Your task to perform on an android device: toggle javascript in the chrome app Image 0: 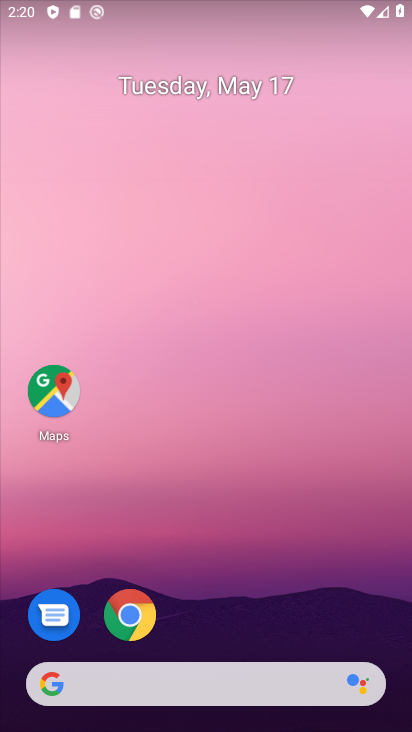
Step 0: click (132, 614)
Your task to perform on an android device: toggle javascript in the chrome app Image 1: 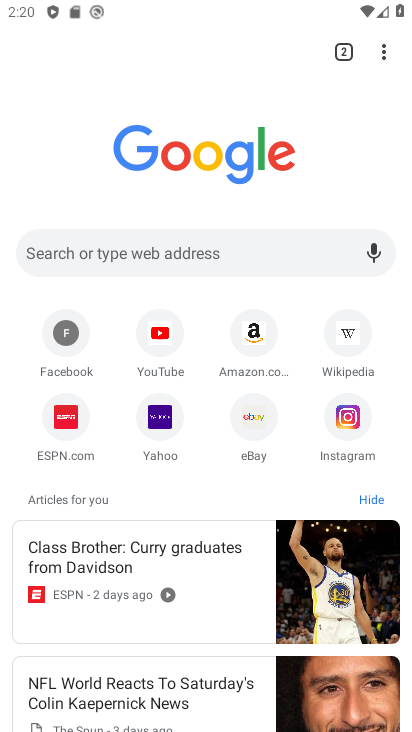
Step 1: click (385, 56)
Your task to perform on an android device: toggle javascript in the chrome app Image 2: 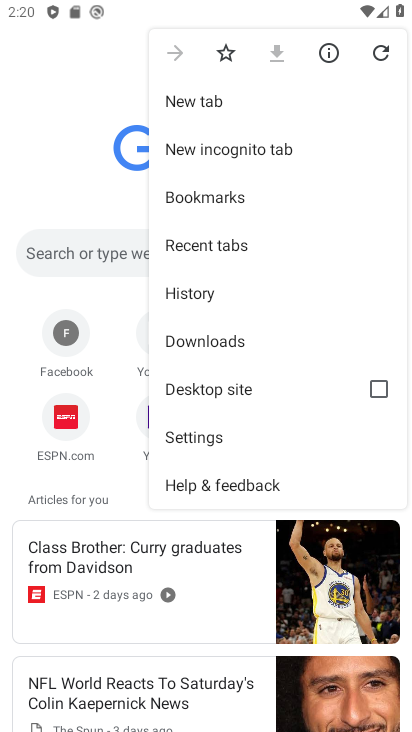
Step 2: click (198, 441)
Your task to perform on an android device: toggle javascript in the chrome app Image 3: 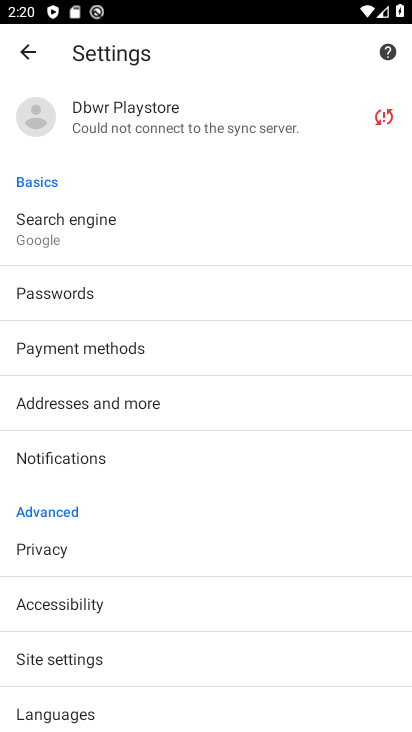
Step 3: click (57, 656)
Your task to perform on an android device: toggle javascript in the chrome app Image 4: 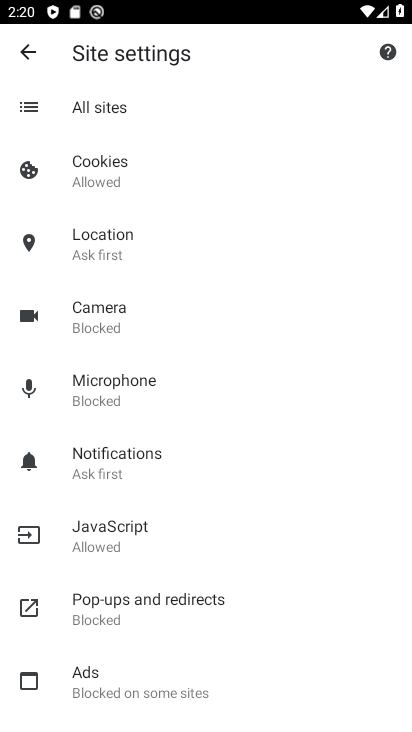
Step 4: click (116, 519)
Your task to perform on an android device: toggle javascript in the chrome app Image 5: 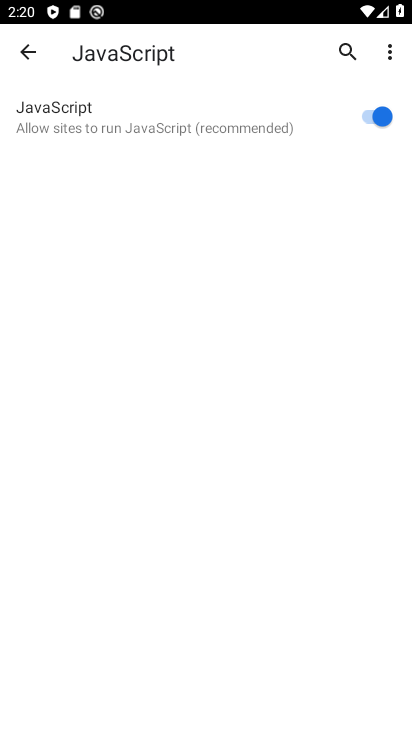
Step 5: click (372, 106)
Your task to perform on an android device: toggle javascript in the chrome app Image 6: 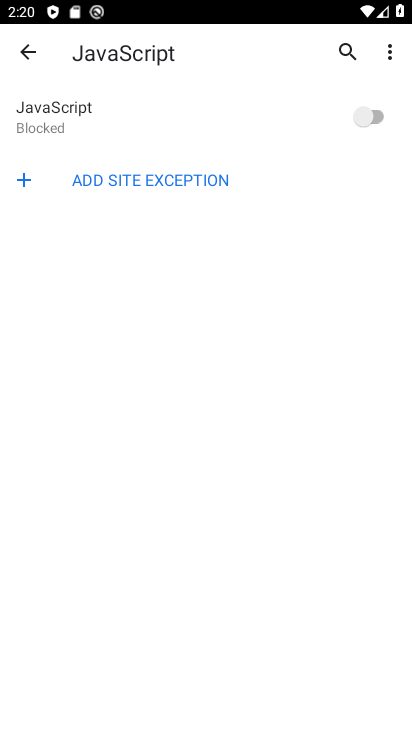
Step 6: task complete